Your task to perform on an android device: Go to settings Image 0: 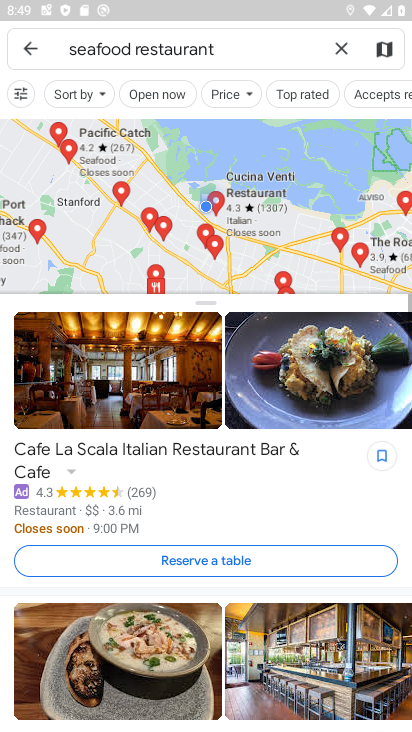
Step 0: press home button
Your task to perform on an android device: Go to settings Image 1: 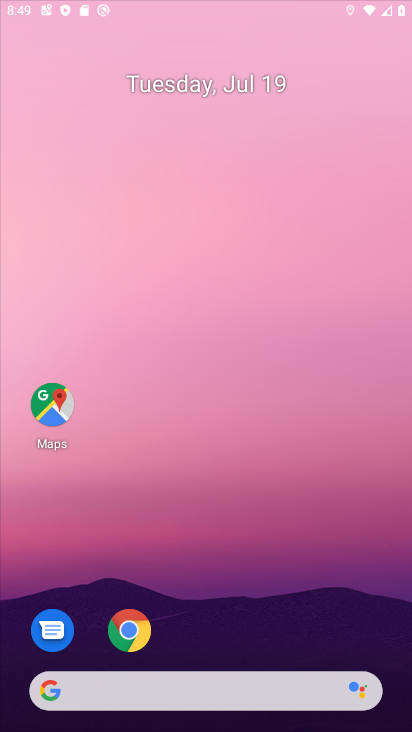
Step 1: drag from (263, 641) to (247, 26)
Your task to perform on an android device: Go to settings Image 2: 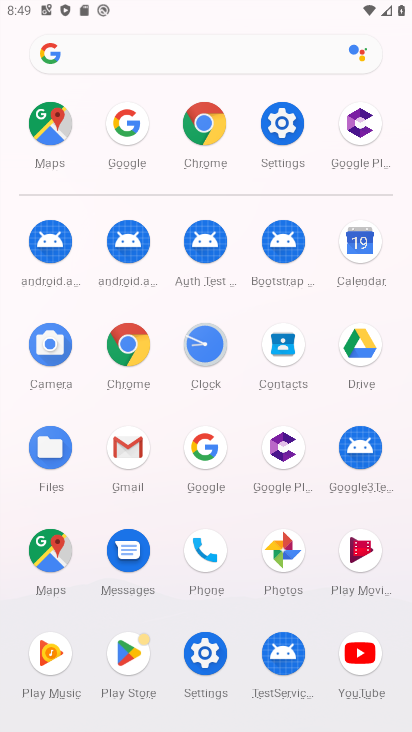
Step 2: click (286, 123)
Your task to perform on an android device: Go to settings Image 3: 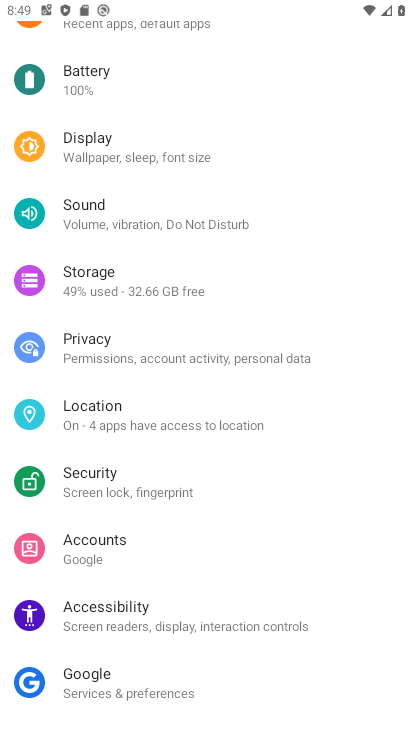
Step 3: task complete